Your task to perform on an android device: Open calendar and show me the second week of next month Image 0: 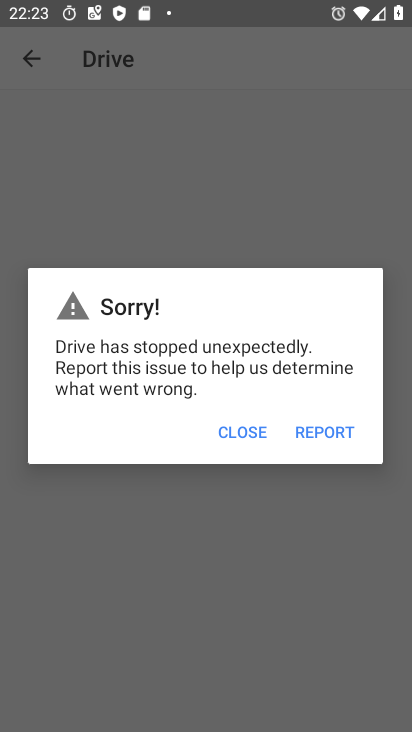
Step 0: press home button
Your task to perform on an android device: Open calendar and show me the second week of next month Image 1: 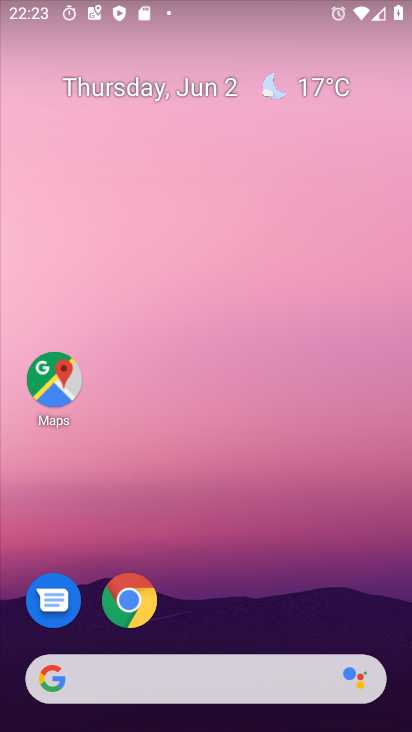
Step 1: drag from (366, 606) to (363, 121)
Your task to perform on an android device: Open calendar and show me the second week of next month Image 2: 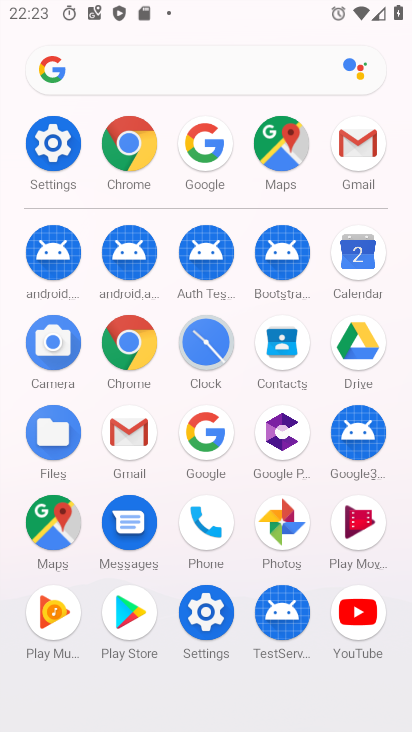
Step 2: click (370, 273)
Your task to perform on an android device: Open calendar and show me the second week of next month Image 3: 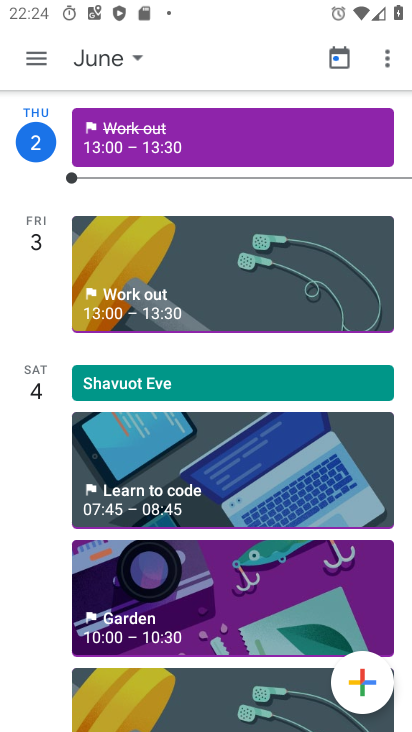
Step 3: click (136, 54)
Your task to perform on an android device: Open calendar and show me the second week of next month Image 4: 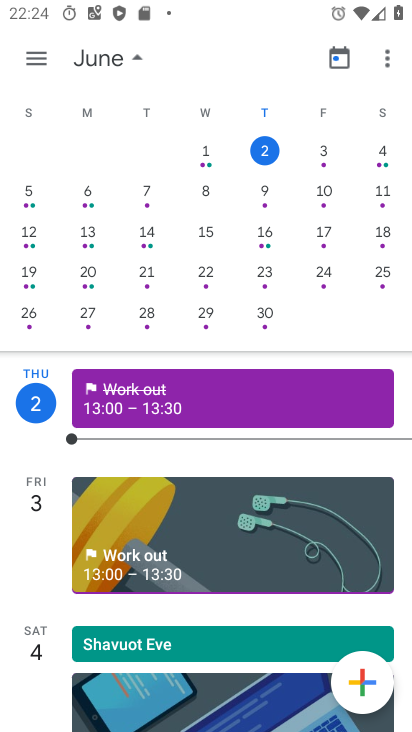
Step 4: click (84, 198)
Your task to perform on an android device: Open calendar and show me the second week of next month Image 5: 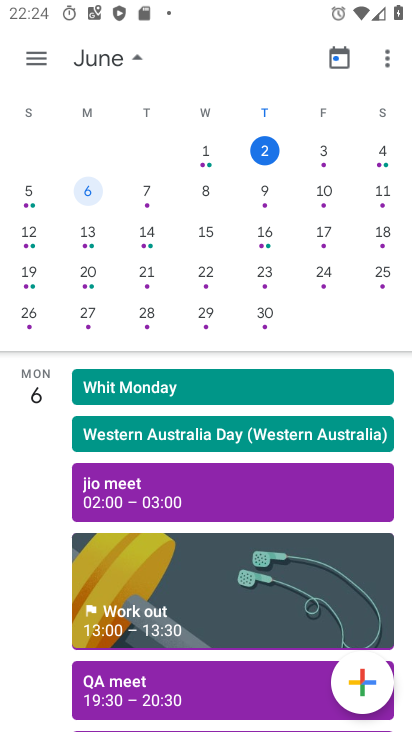
Step 5: task complete